Your task to perform on an android device: install app "Mercado Libre" Image 0: 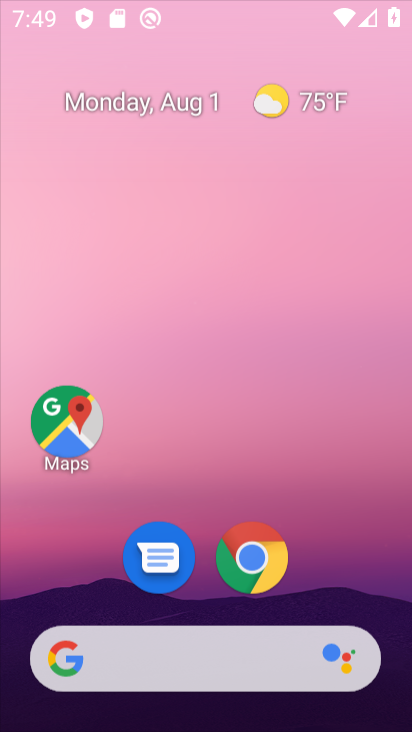
Step 0: click (196, 222)
Your task to perform on an android device: install app "Mercado Libre" Image 1: 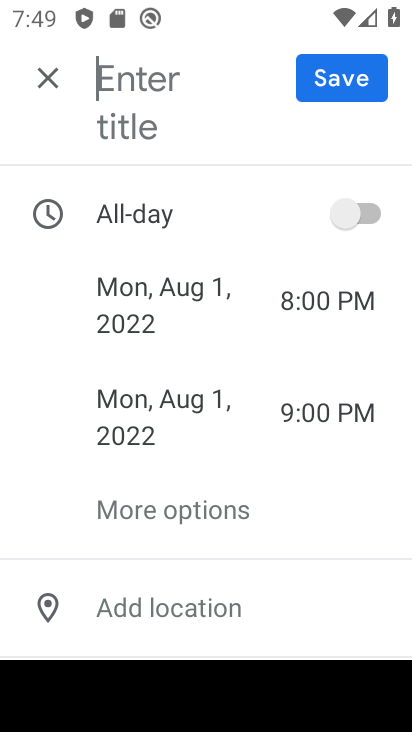
Step 1: press home button
Your task to perform on an android device: install app "Mercado Libre" Image 2: 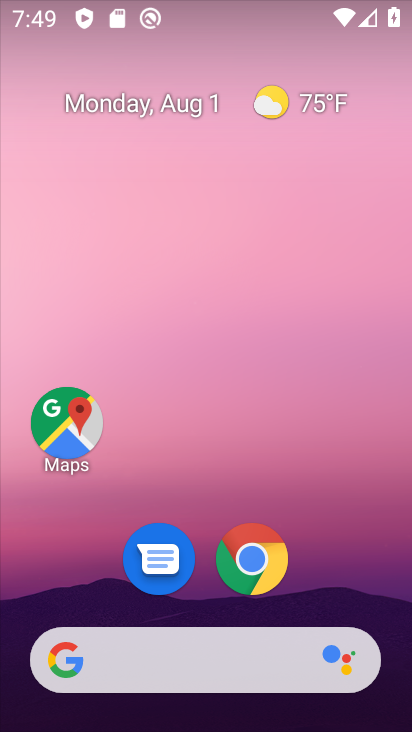
Step 2: drag from (165, 644) to (196, 72)
Your task to perform on an android device: install app "Mercado Libre" Image 3: 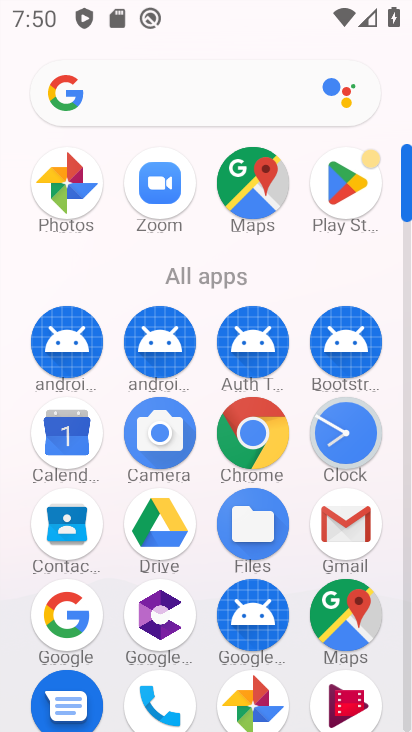
Step 3: click (348, 190)
Your task to perform on an android device: install app "Mercado Libre" Image 4: 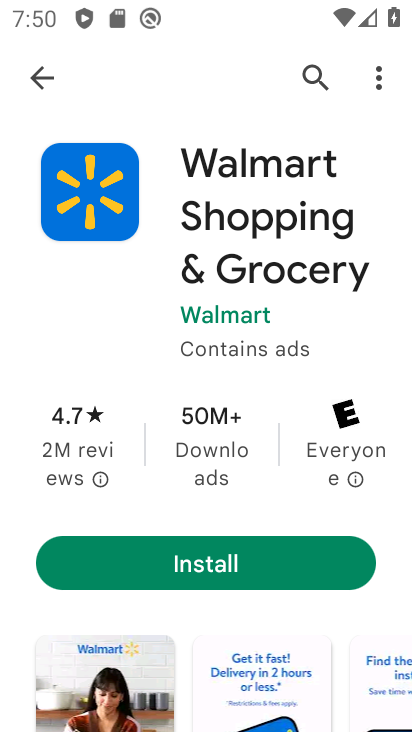
Step 4: click (321, 82)
Your task to perform on an android device: install app "Mercado Libre" Image 5: 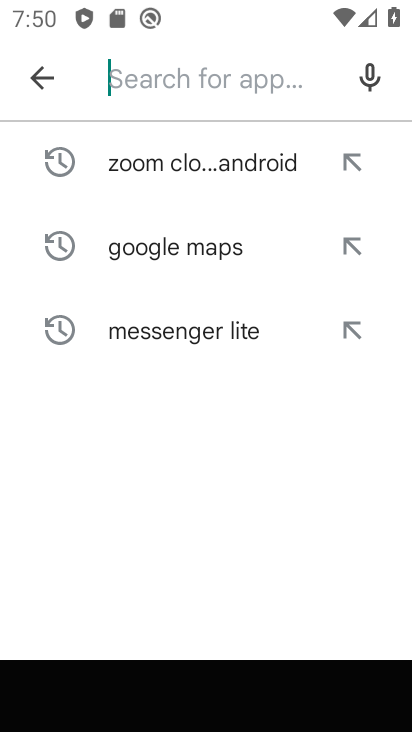
Step 5: click (321, 82)
Your task to perform on an android device: install app "Mercado Libre" Image 6: 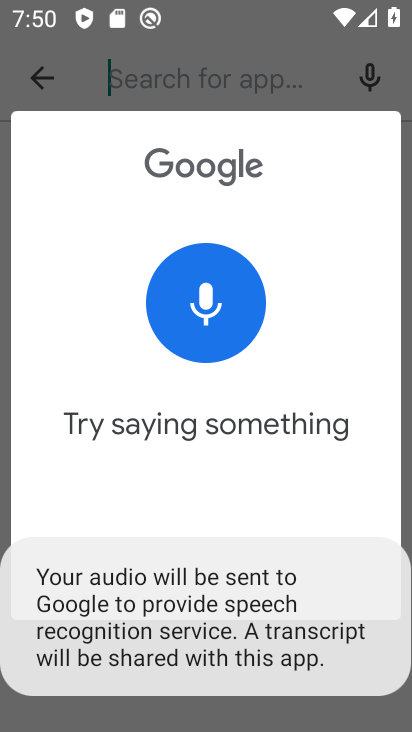
Step 6: click (213, 82)
Your task to perform on an android device: install app "Mercado Libre" Image 7: 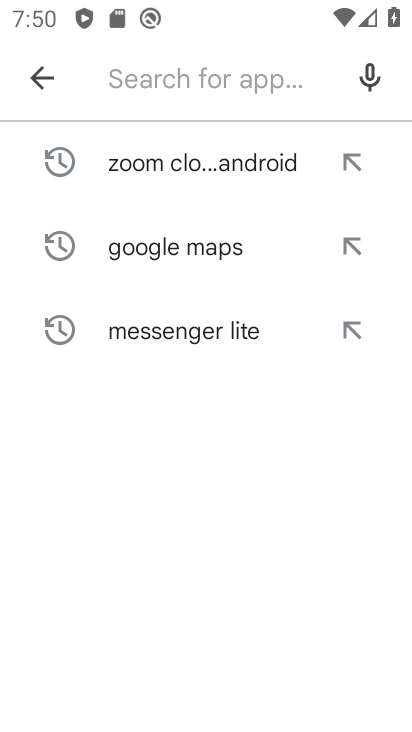
Step 7: type "Mercado Libre"
Your task to perform on an android device: install app "Mercado Libre" Image 8: 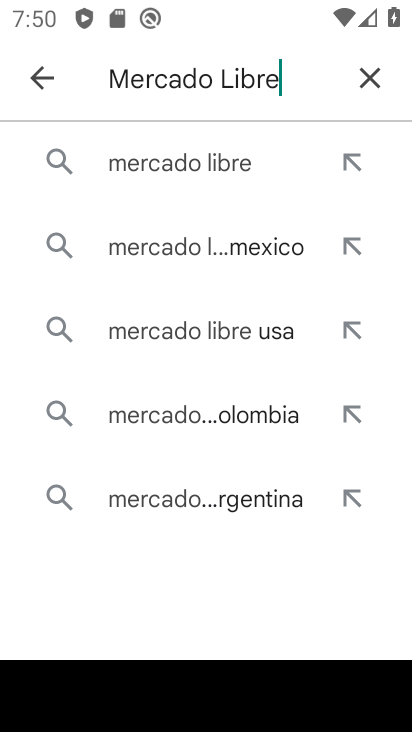
Step 8: click (181, 153)
Your task to perform on an android device: install app "Mercado Libre" Image 9: 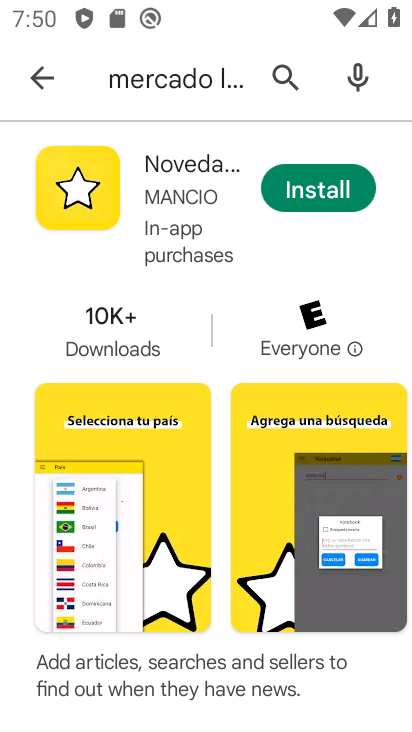
Step 9: click (280, 185)
Your task to perform on an android device: install app "Mercado Libre" Image 10: 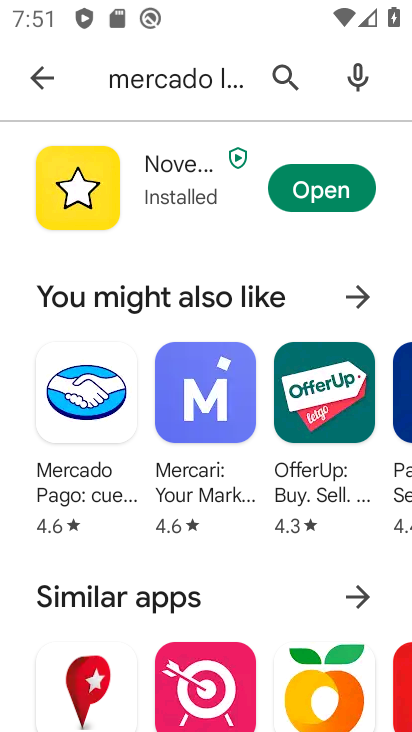
Step 10: task complete